Your task to perform on an android device: toggle wifi Image 0: 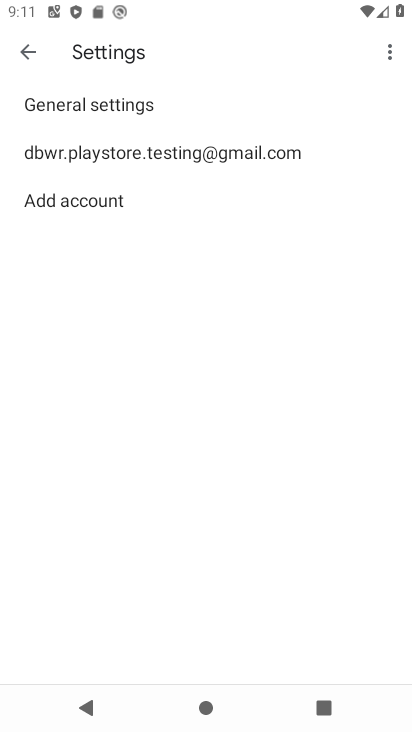
Step 0: press back button
Your task to perform on an android device: toggle wifi Image 1: 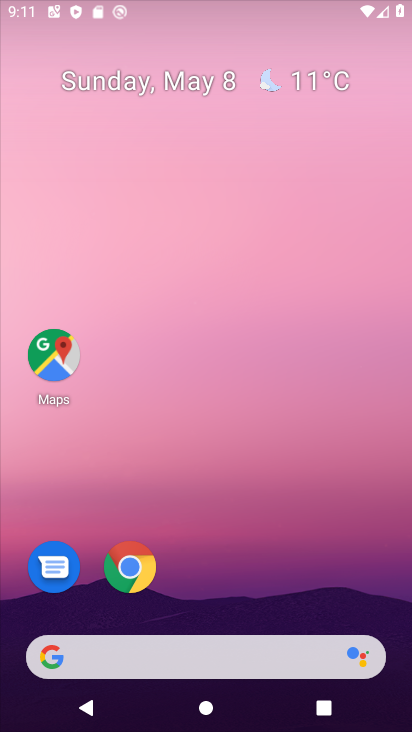
Step 1: drag from (89, 13) to (105, 562)
Your task to perform on an android device: toggle wifi Image 2: 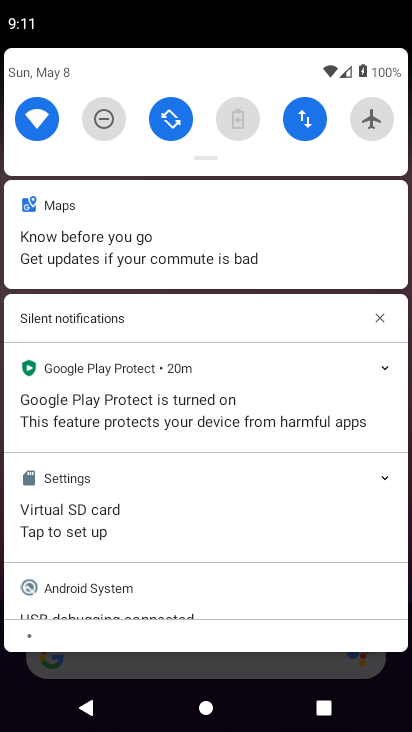
Step 2: click (39, 119)
Your task to perform on an android device: toggle wifi Image 3: 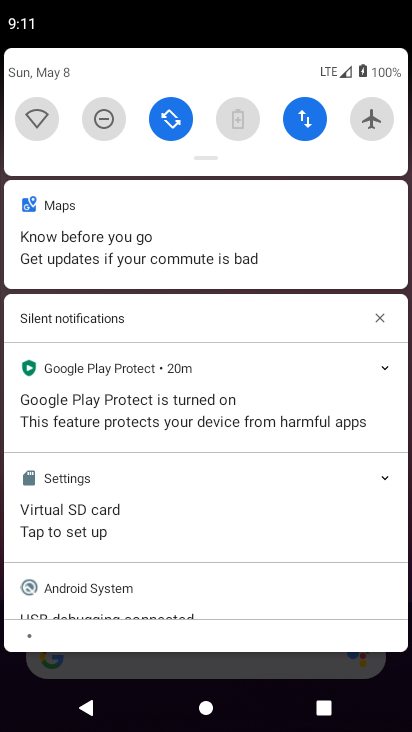
Step 3: task complete